Your task to perform on an android device: Open Youtube and go to "Your channel" Image 0: 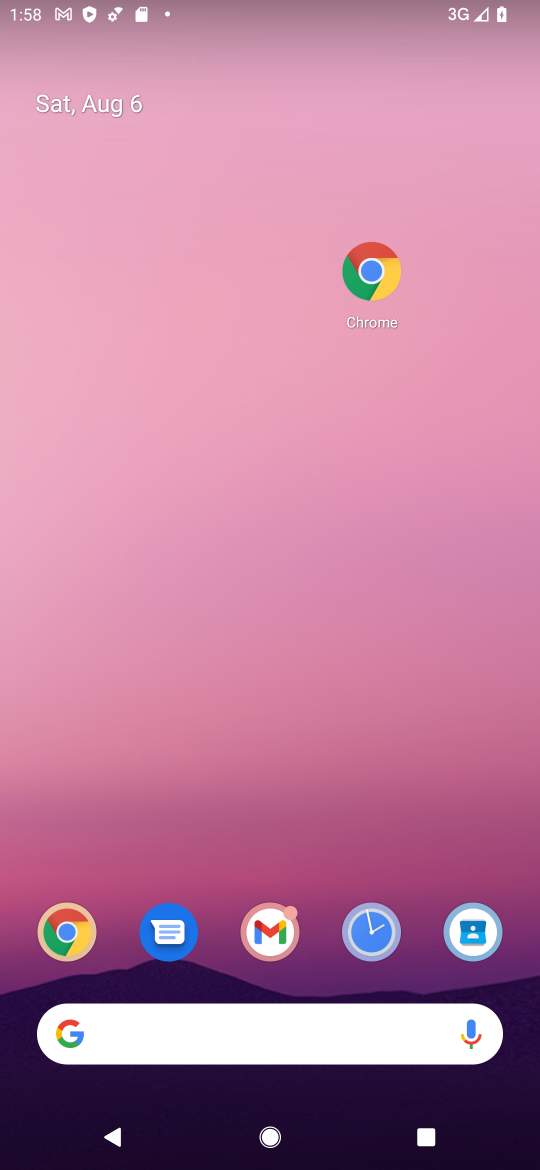
Step 0: drag from (332, 957) to (297, 156)
Your task to perform on an android device: Open Youtube and go to "Your channel" Image 1: 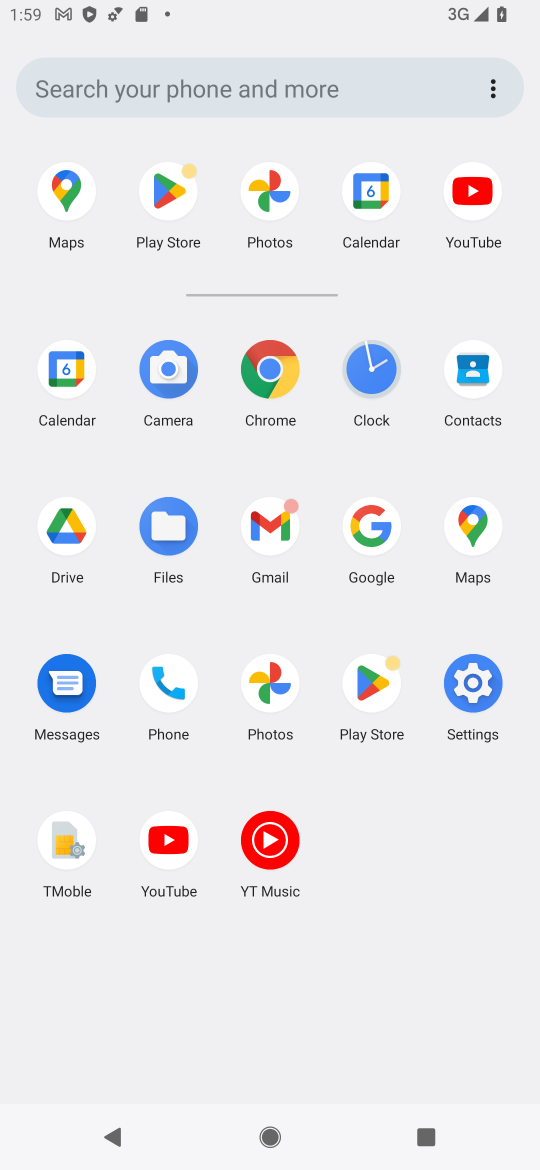
Step 1: click (183, 840)
Your task to perform on an android device: Open Youtube and go to "Your channel" Image 2: 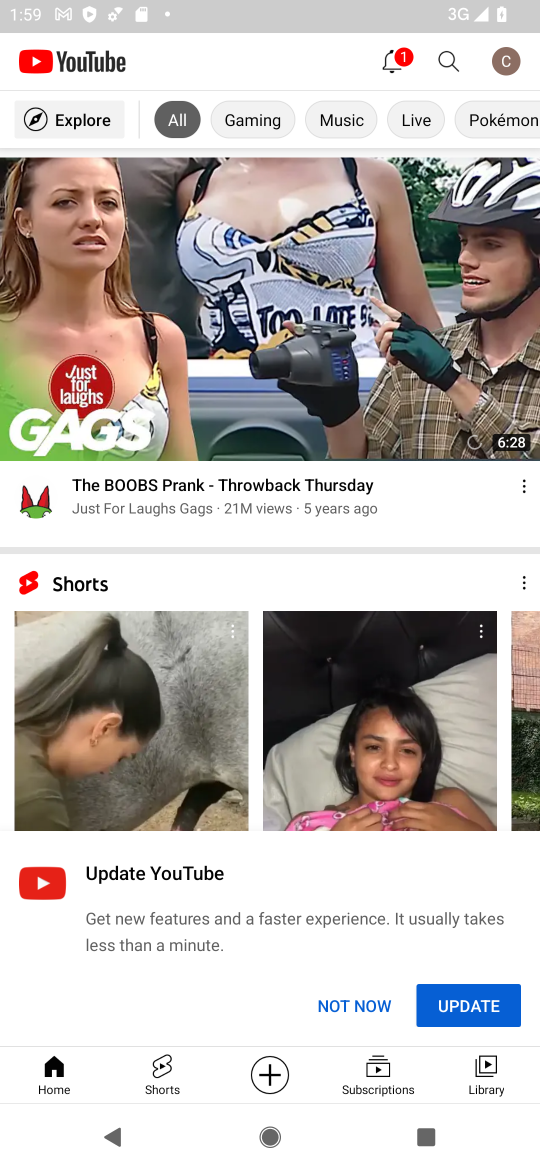
Step 2: click (510, 68)
Your task to perform on an android device: Open Youtube and go to "Your channel" Image 3: 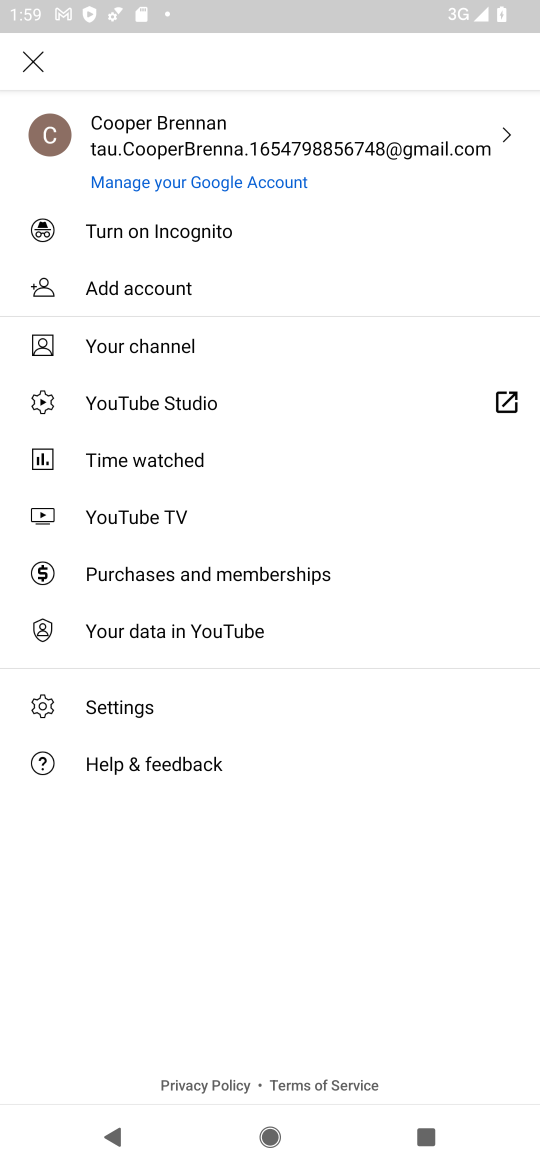
Step 3: click (138, 344)
Your task to perform on an android device: Open Youtube and go to "Your channel" Image 4: 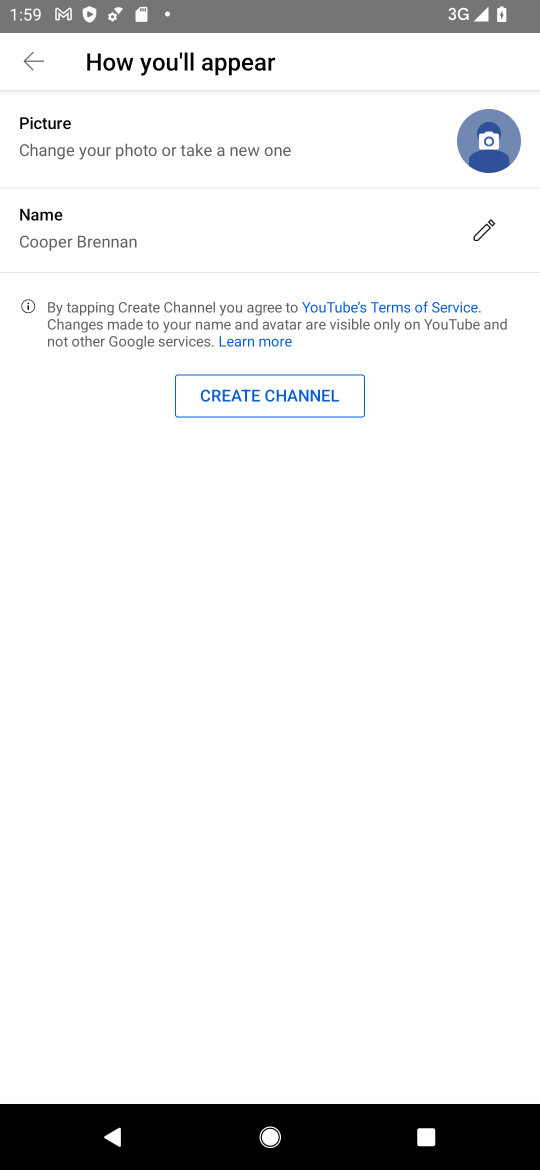
Step 4: task complete